Your task to perform on an android device: turn on bluetooth scan Image 0: 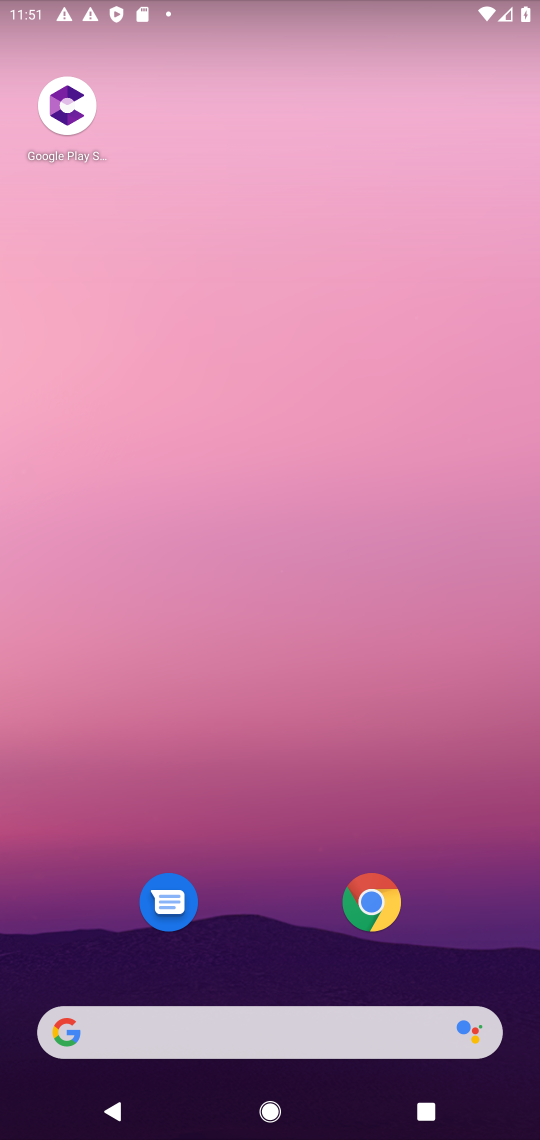
Step 0: drag from (279, 911) to (367, 105)
Your task to perform on an android device: turn on bluetooth scan Image 1: 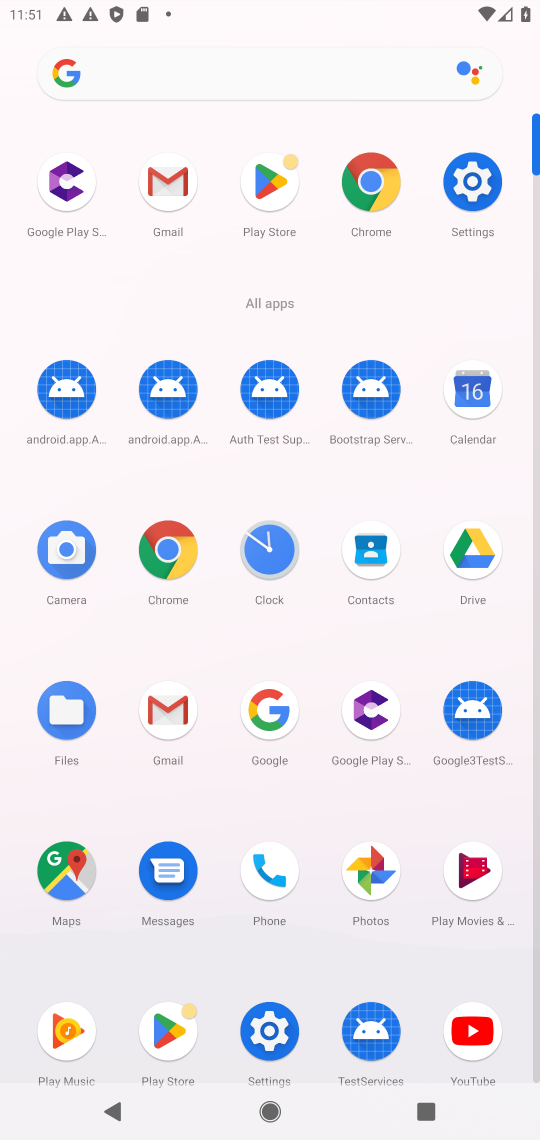
Step 1: click (275, 1033)
Your task to perform on an android device: turn on bluetooth scan Image 2: 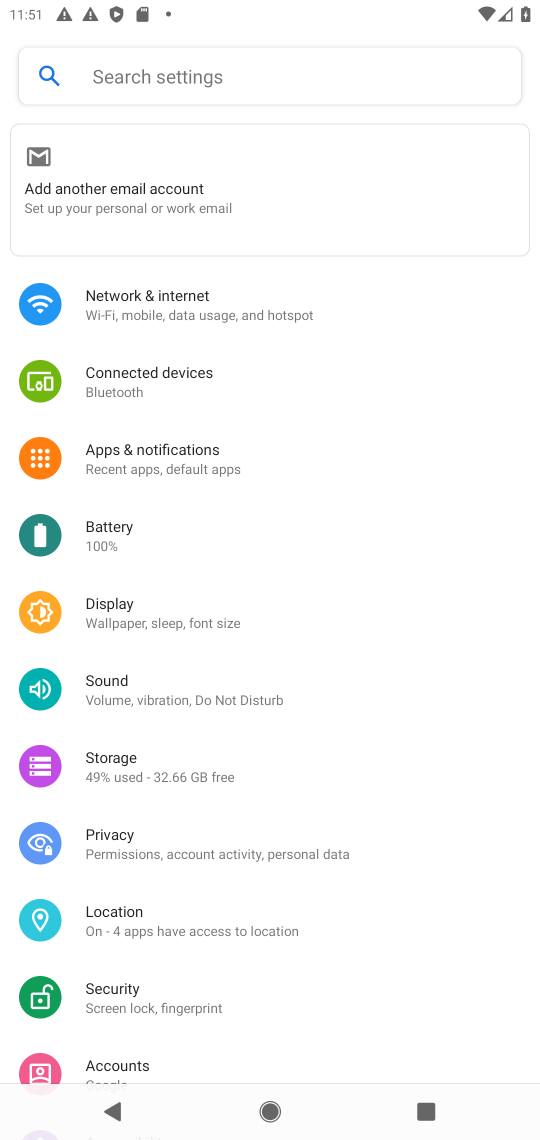
Step 2: click (146, 916)
Your task to perform on an android device: turn on bluetooth scan Image 3: 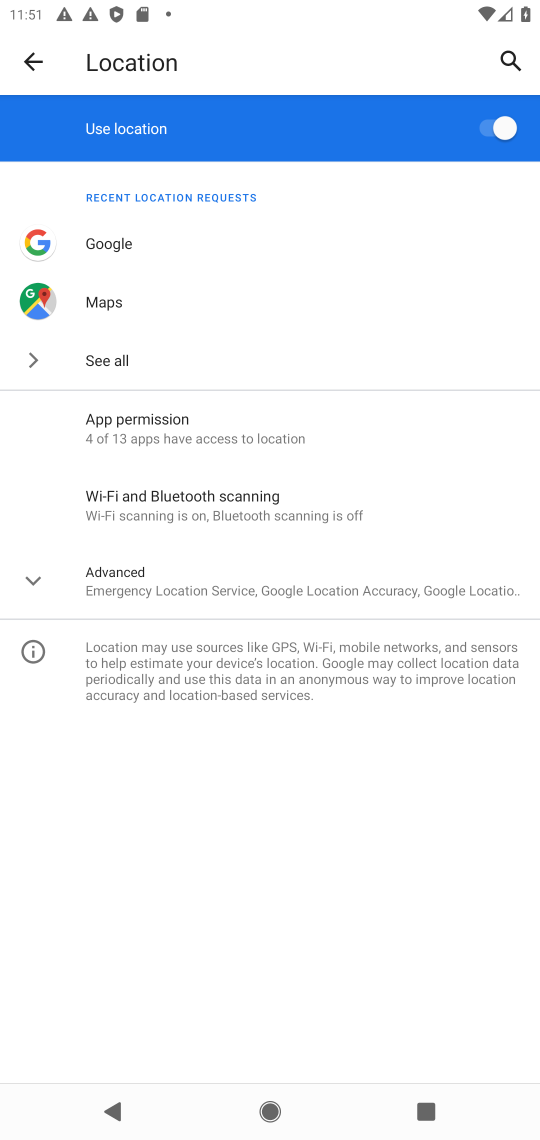
Step 3: click (205, 584)
Your task to perform on an android device: turn on bluetooth scan Image 4: 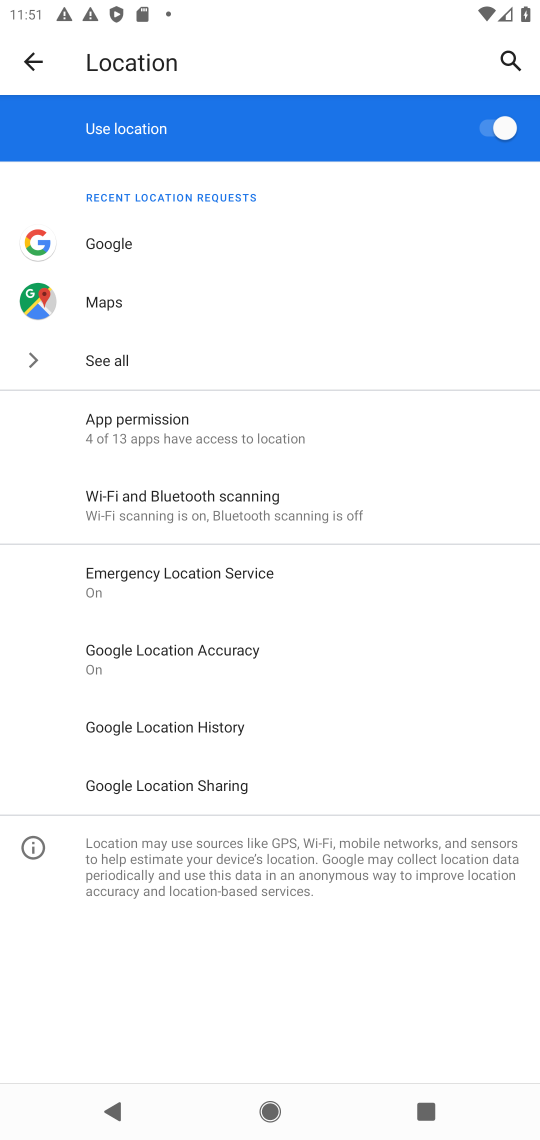
Step 4: click (225, 501)
Your task to perform on an android device: turn on bluetooth scan Image 5: 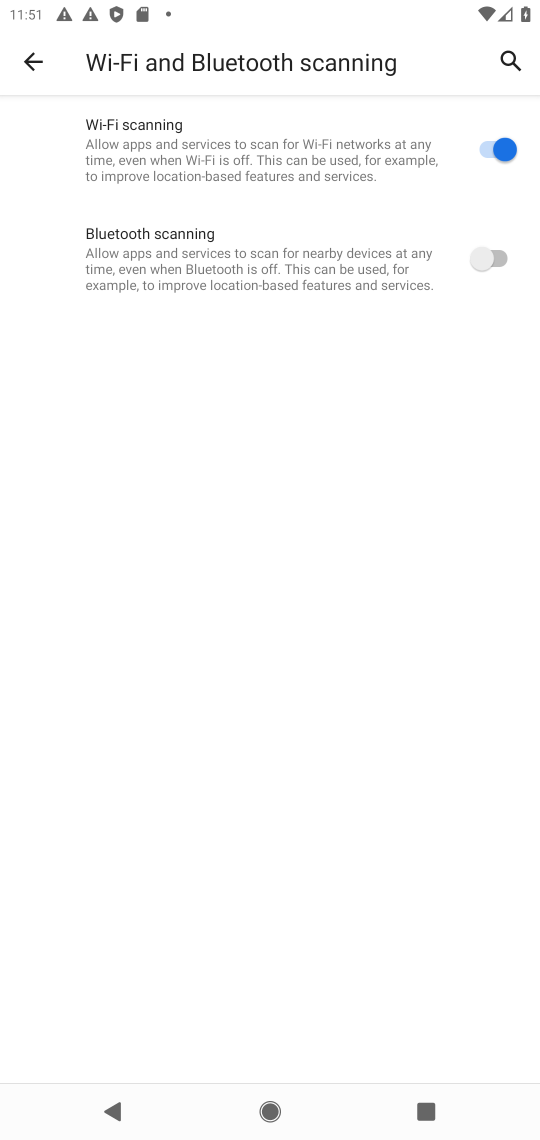
Step 5: click (450, 249)
Your task to perform on an android device: turn on bluetooth scan Image 6: 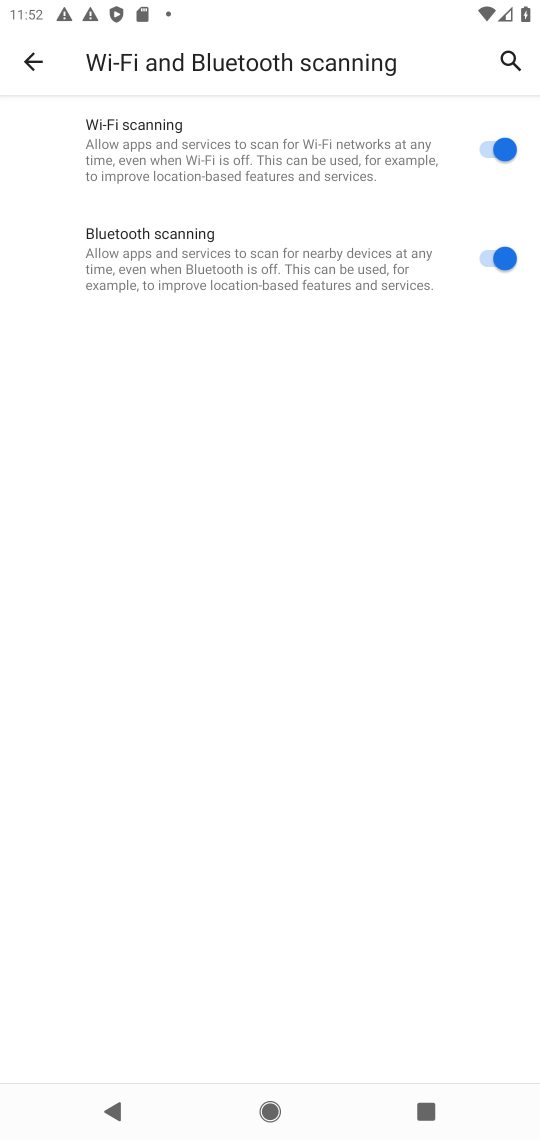
Step 6: task complete